Your task to perform on an android device: turn smart compose on in the gmail app Image 0: 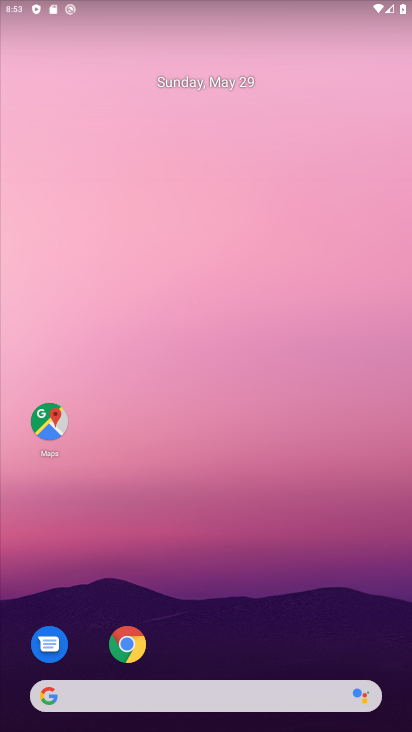
Step 0: drag from (236, 580) to (196, 4)
Your task to perform on an android device: turn smart compose on in the gmail app Image 1: 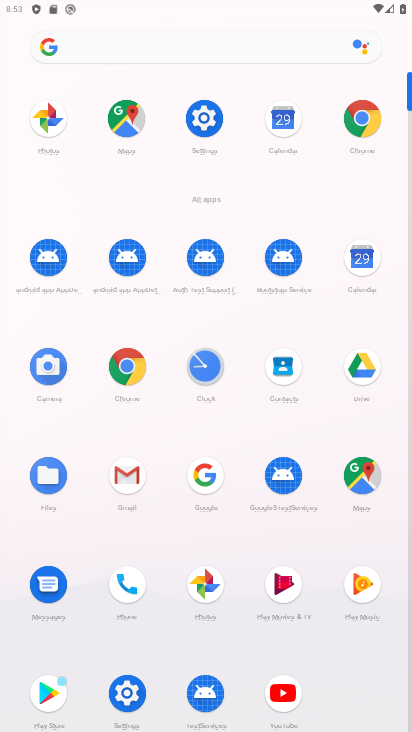
Step 1: drag from (8, 538) to (17, 113)
Your task to perform on an android device: turn smart compose on in the gmail app Image 2: 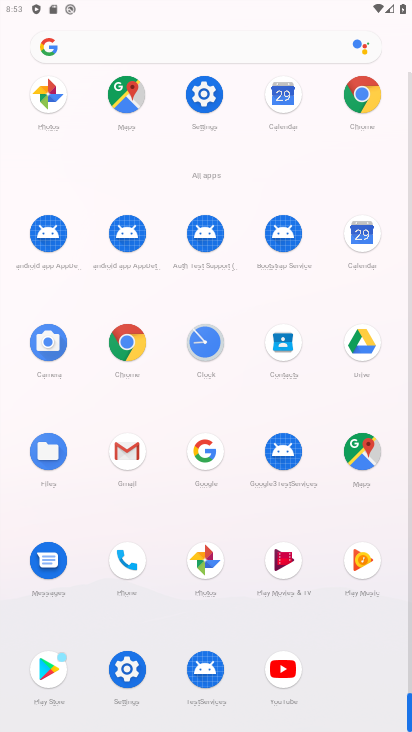
Step 2: click (126, 449)
Your task to perform on an android device: turn smart compose on in the gmail app Image 3: 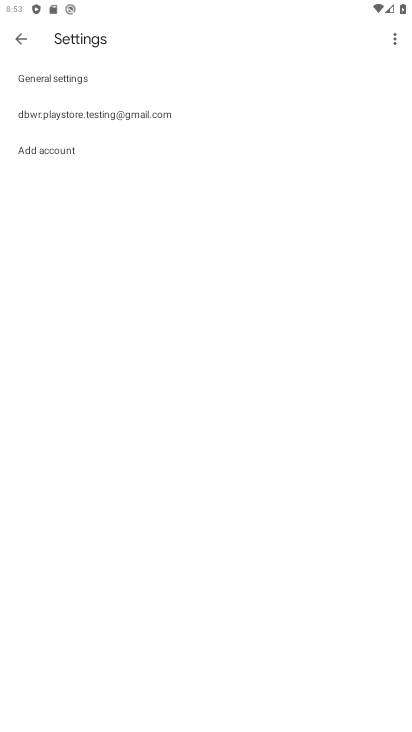
Step 3: click (108, 107)
Your task to perform on an android device: turn smart compose on in the gmail app Image 4: 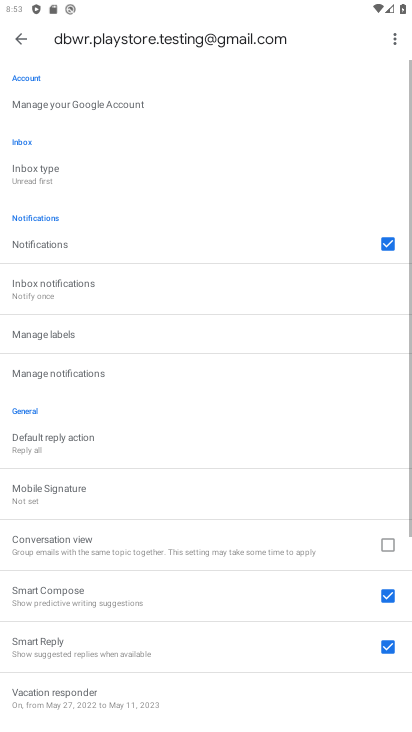
Step 4: task complete